Your task to perform on an android device: What's on my calendar today? Image 0: 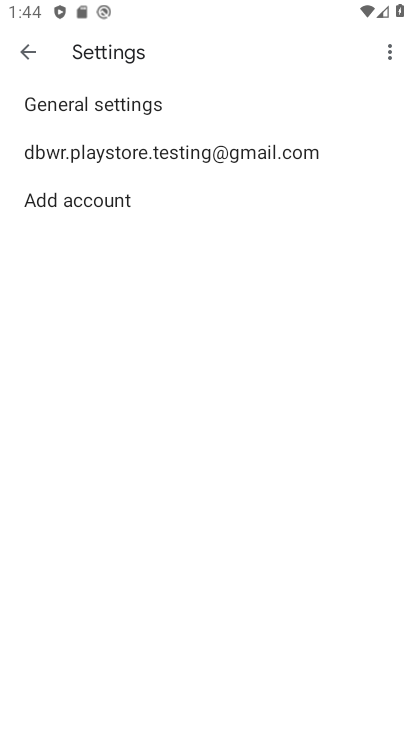
Step 0: press home button
Your task to perform on an android device: What's on my calendar today? Image 1: 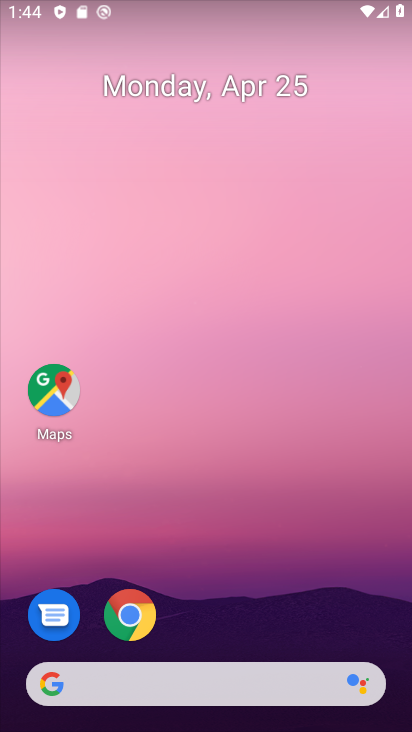
Step 1: drag from (333, 611) to (328, 34)
Your task to perform on an android device: What's on my calendar today? Image 2: 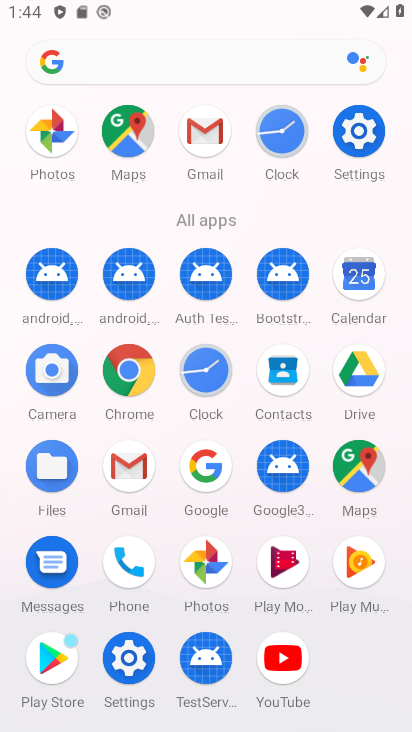
Step 2: click (370, 274)
Your task to perform on an android device: What's on my calendar today? Image 3: 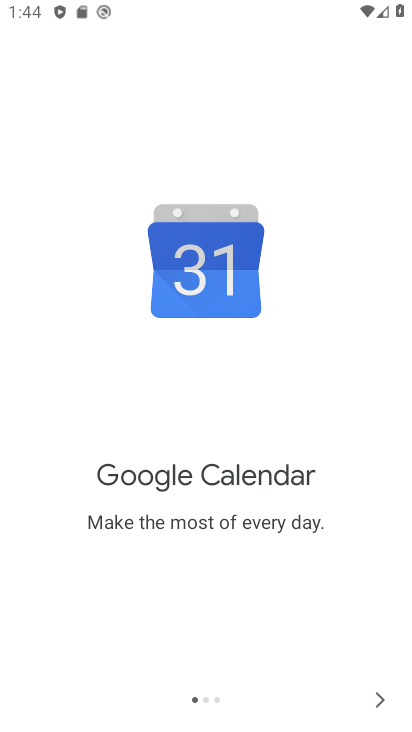
Step 3: click (382, 698)
Your task to perform on an android device: What's on my calendar today? Image 4: 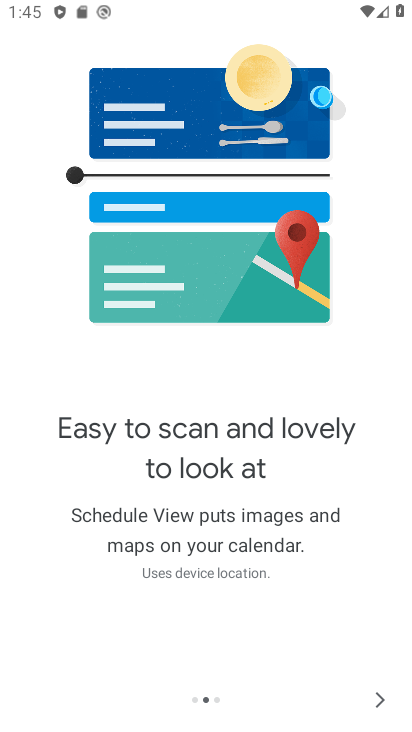
Step 4: click (379, 699)
Your task to perform on an android device: What's on my calendar today? Image 5: 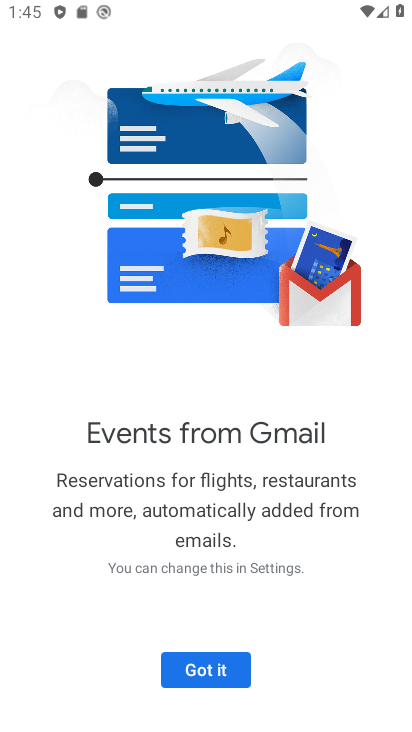
Step 5: click (222, 672)
Your task to perform on an android device: What's on my calendar today? Image 6: 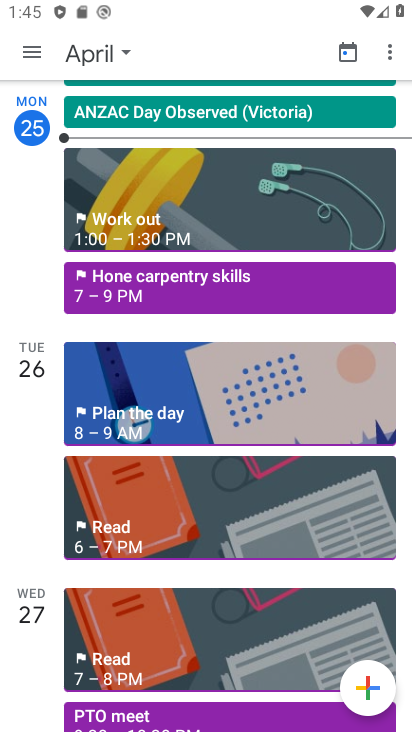
Step 6: task complete